Your task to perform on an android device: make emails show in primary in the gmail app Image 0: 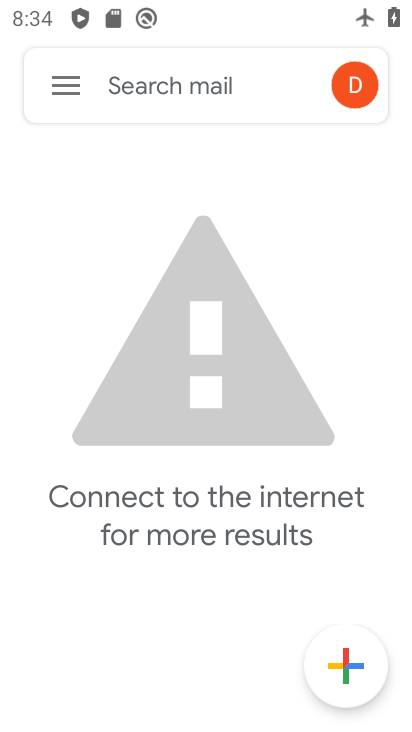
Step 0: press home button
Your task to perform on an android device: make emails show in primary in the gmail app Image 1: 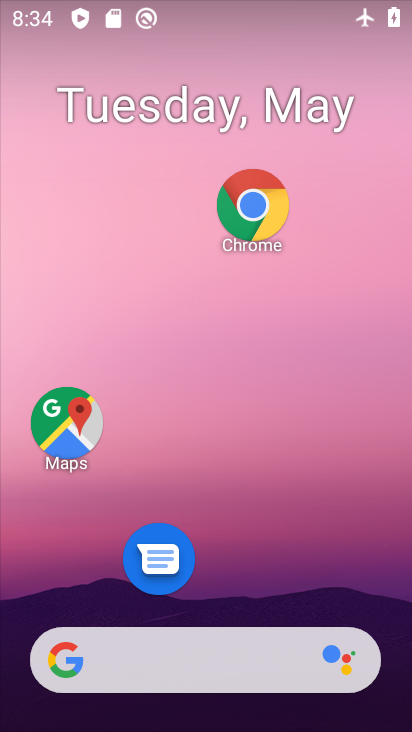
Step 1: drag from (220, 597) to (205, 213)
Your task to perform on an android device: make emails show in primary in the gmail app Image 2: 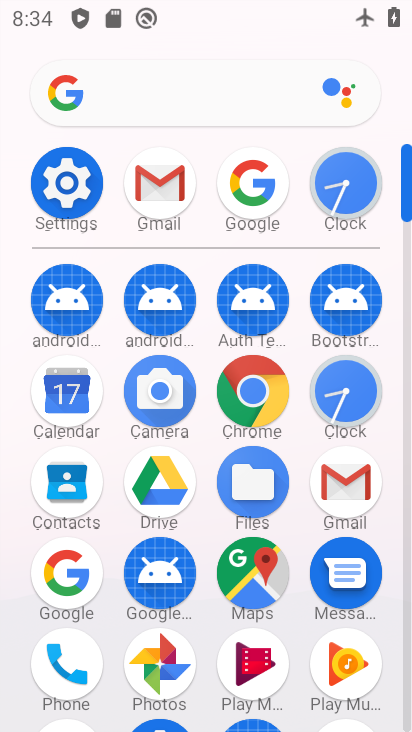
Step 2: click (173, 187)
Your task to perform on an android device: make emails show in primary in the gmail app Image 3: 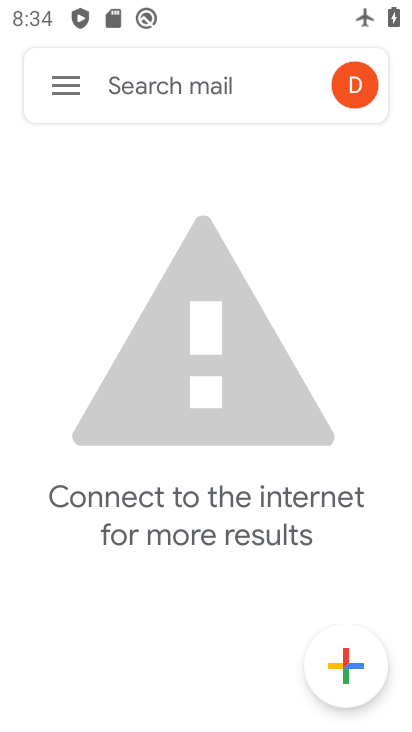
Step 3: click (76, 91)
Your task to perform on an android device: make emails show in primary in the gmail app Image 4: 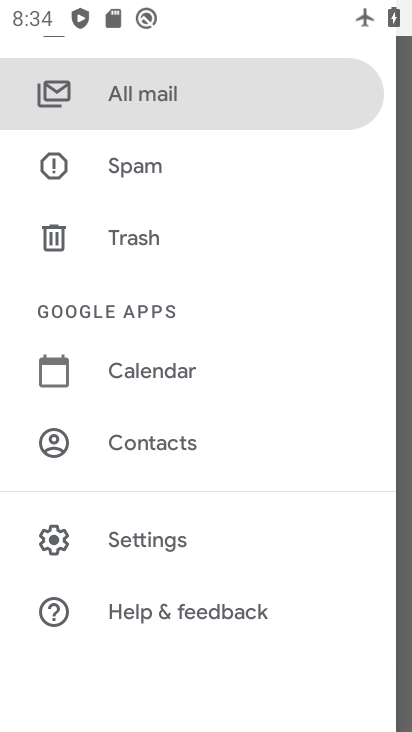
Step 4: click (162, 532)
Your task to perform on an android device: make emails show in primary in the gmail app Image 5: 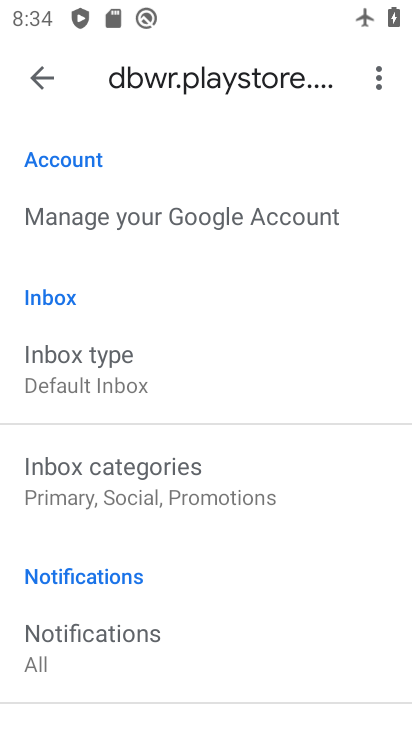
Step 5: click (157, 460)
Your task to perform on an android device: make emails show in primary in the gmail app Image 6: 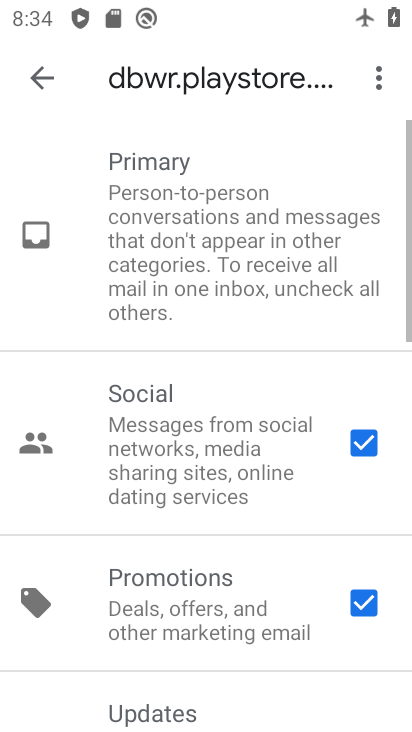
Step 6: click (156, 221)
Your task to perform on an android device: make emails show in primary in the gmail app Image 7: 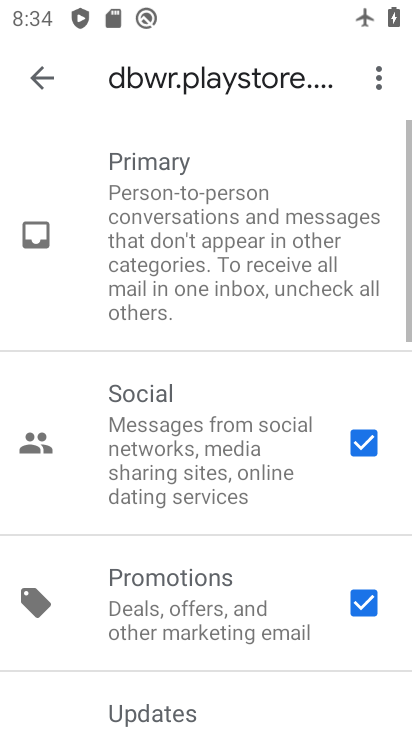
Step 7: task complete